Your task to perform on an android device: Find coffee shops on Maps Image 0: 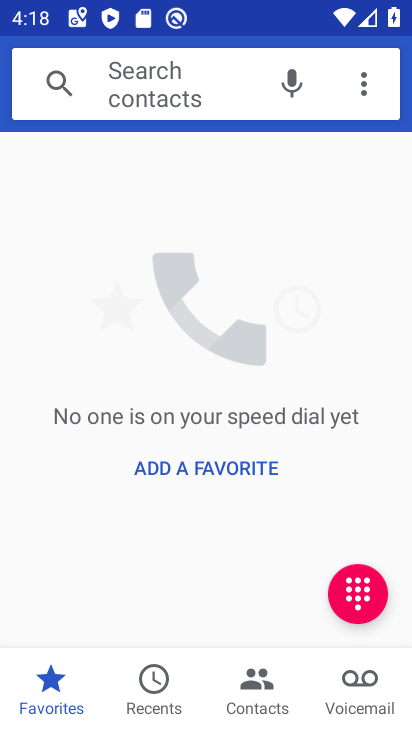
Step 0: press back button
Your task to perform on an android device: Find coffee shops on Maps Image 1: 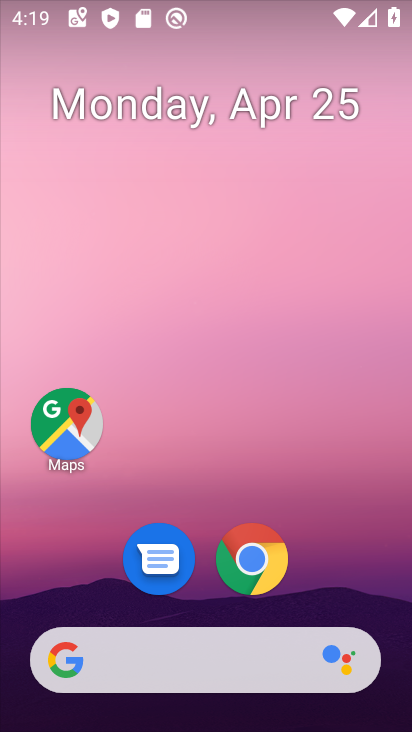
Step 1: click (67, 427)
Your task to perform on an android device: Find coffee shops on Maps Image 2: 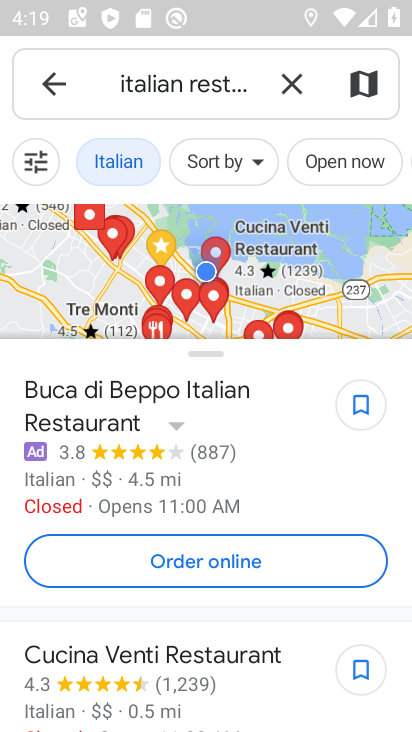
Step 2: click (288, 84)
Your task to perform on an android device: Find coffee shops on Maps Image 3: 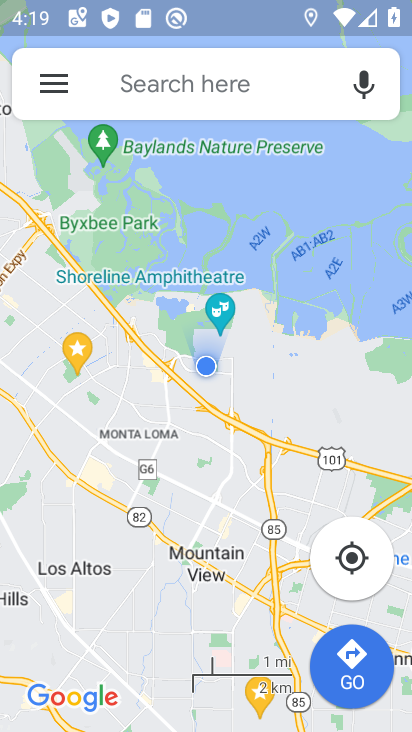
Step 3: click (253, 89)
Your task to perform on an android device: Find coffee shops on Maps Image 4: 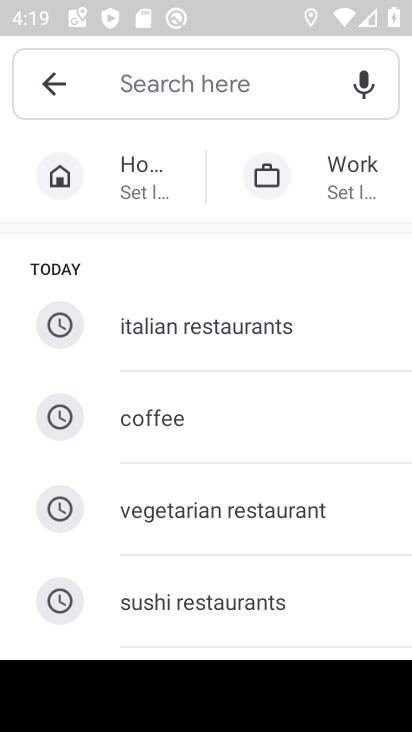
Step 4: type "coffee shops"
Your task to perform on an android device: Find coffee shops on Maps Image 5: 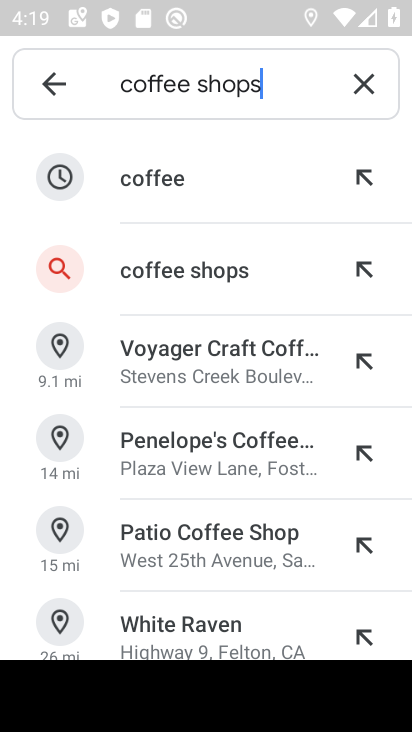
Step 5: click (164, 269)
Your task to perform on an android device: Find coffee shops on Maps Image 6: 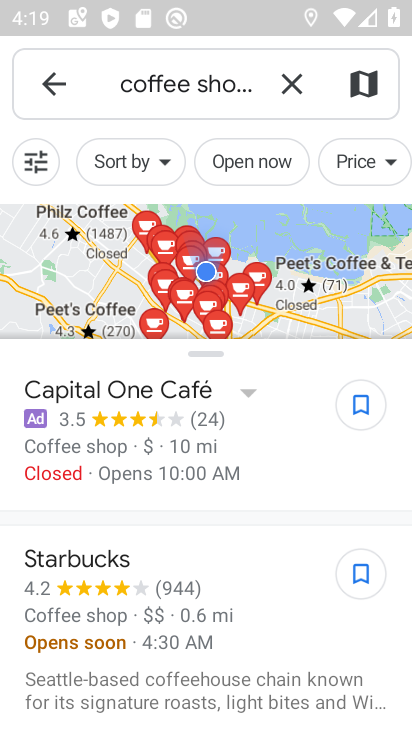
Step 6: task complete